Your task to perform on an android device: stop showing notifications on the lock screen Image 0: 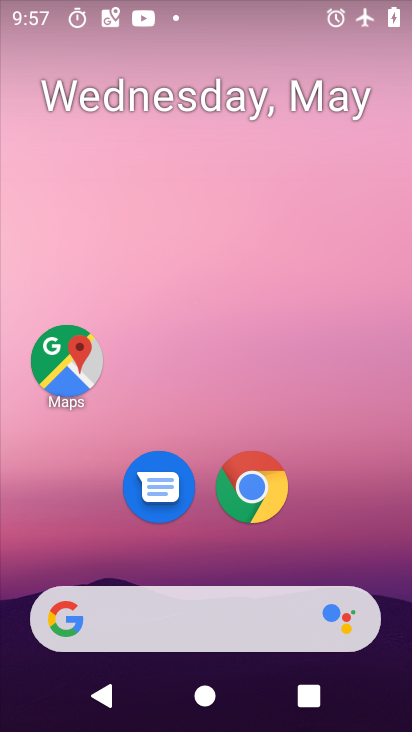
Step 0: drag from (200, 553) to (203, 220)
Your task to perform on an android device: stop showing notifications on the lock screen Image 1: 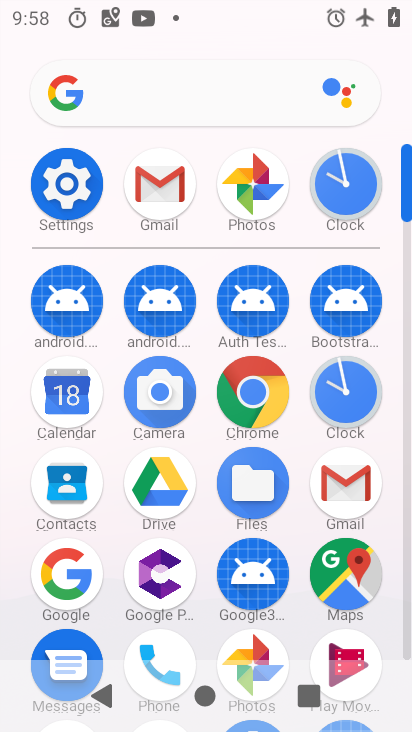
Step 1: click (57, 201)
Your task to perform on an android device: stop showing notifications on the lock screen Image 2: 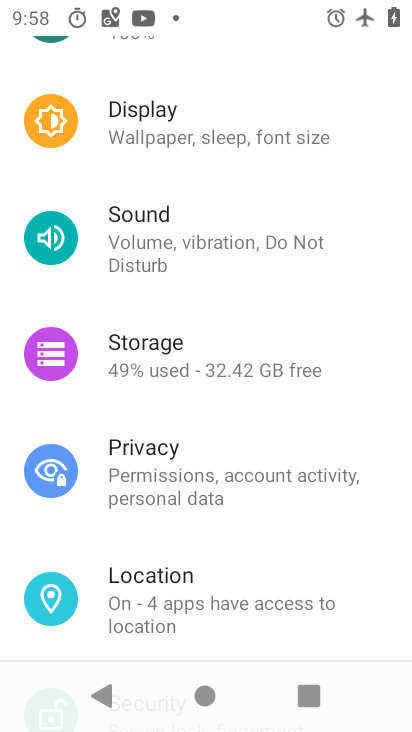
Step 2: drag from (218, 547) to (214, 197)
Your task to perform on an android device: stop showing notifications on the lock screen Image 3: 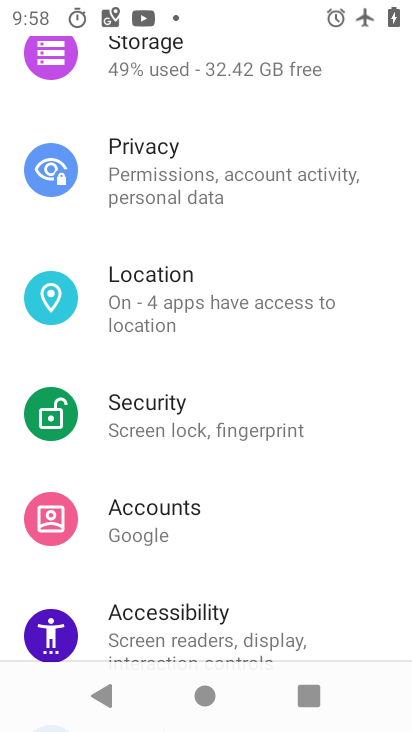
Step 3: drag from (214, 197) to (260, 503)
Your task to perform on an android device: stop showing notifications on the lock screen Image 4: 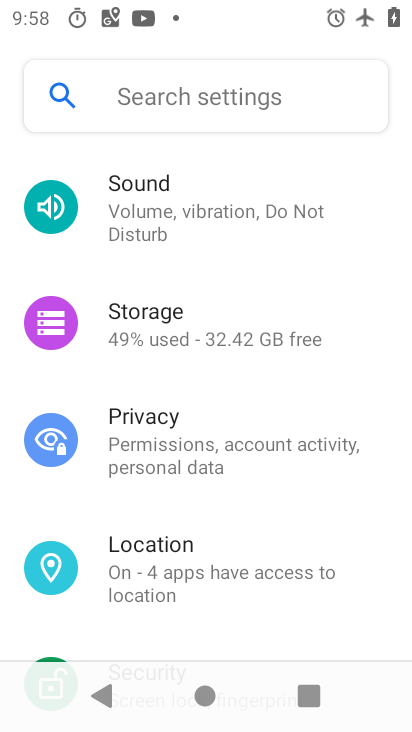
Step 4: click (220, 300)
Your task to perform on an android device: stop showing notifications on the lock screen Image 5: 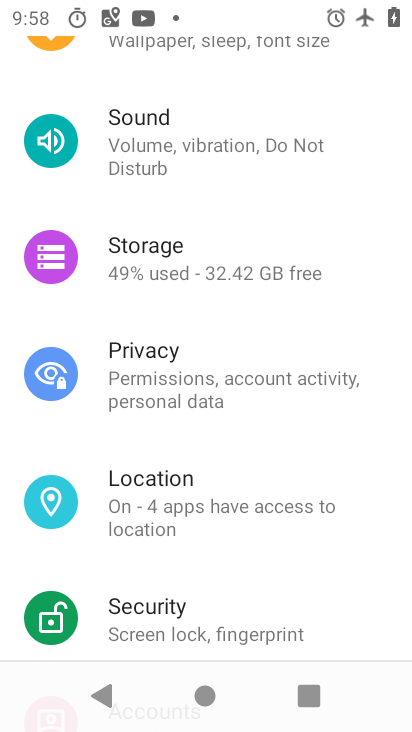
Step 5: drag from (215, 189) to (266, 560)
Your task to perform on an android device: stop showing notifications on the lock screen Image 6: 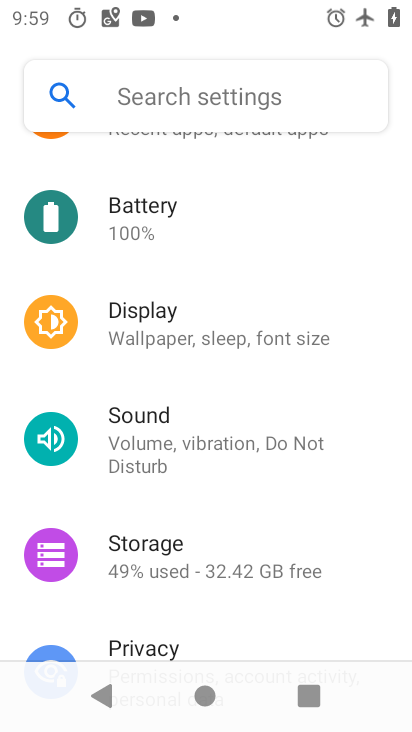
Step 6: drag from (207, 309) to (220, 539)
Your task to perform on an android device: stop showing notifications on the lock screen Image 7: 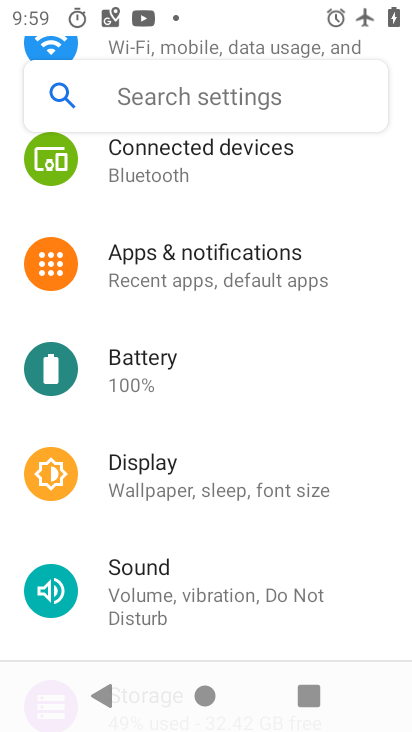
Step 7: click (185, 256)
Your task to perform on an android device: stop showing notifications on the lock screen Image 8: 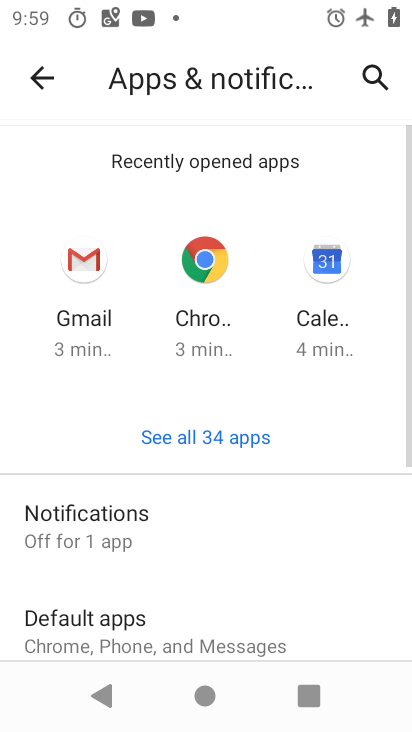
Step 8: click (179, 525)
Your task to perform on an android device: stop showing notifications on the lock screen Image 9: 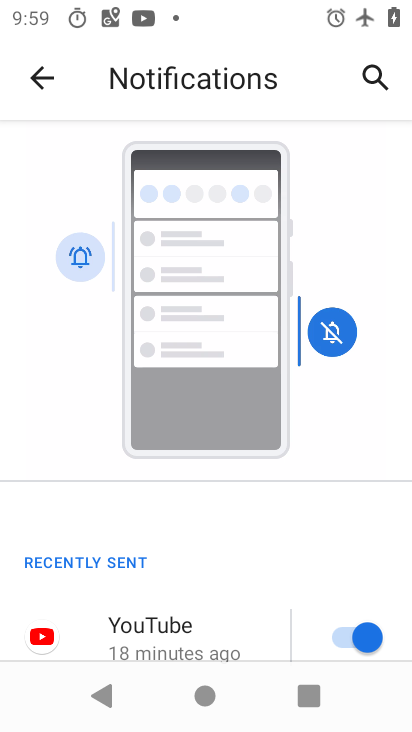
Step 9: drag from (157, 593) to (165, 317)
Your task to perform on an android device: stop showing notifications on the lock screen Image 10: 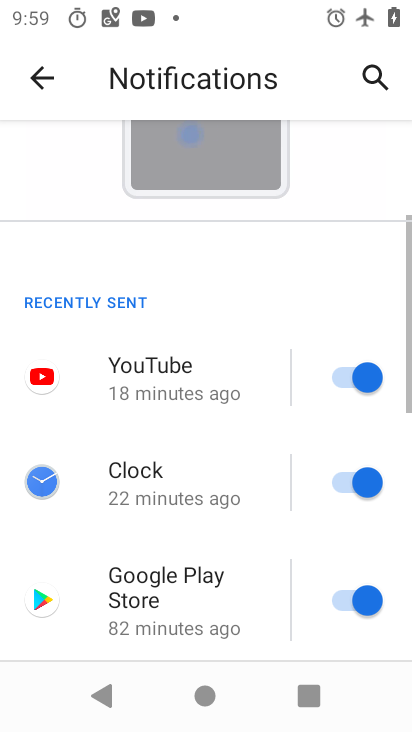
Step 10: drag from (194, 639) to (195, 345)
Your task to perform on an android device: stop showing notifications on the lock screen Image 11: 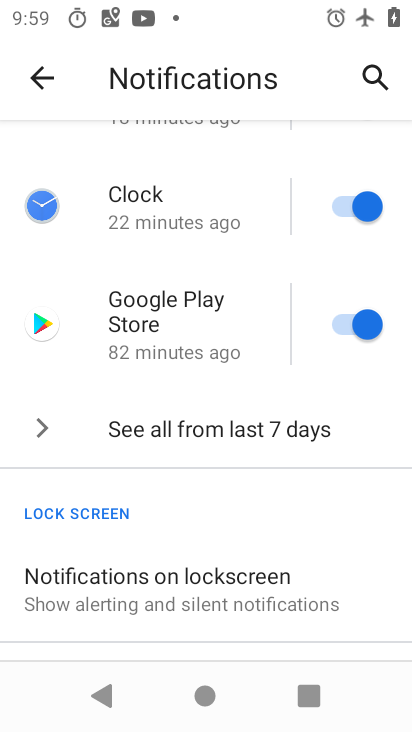
Step 11: click (194, 580)
Your task to perform on an android device: stop showing notifications on the lock screen Image 12: 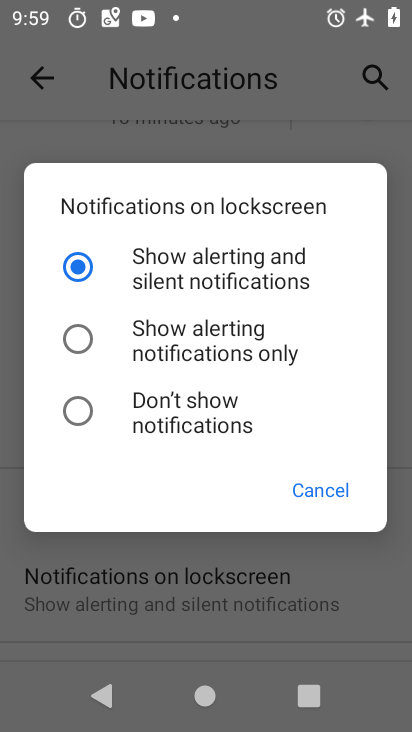
Step 12: click (182, 421)
Your task to perform on an android device: stop showing notifications on the lock screen Image 13: 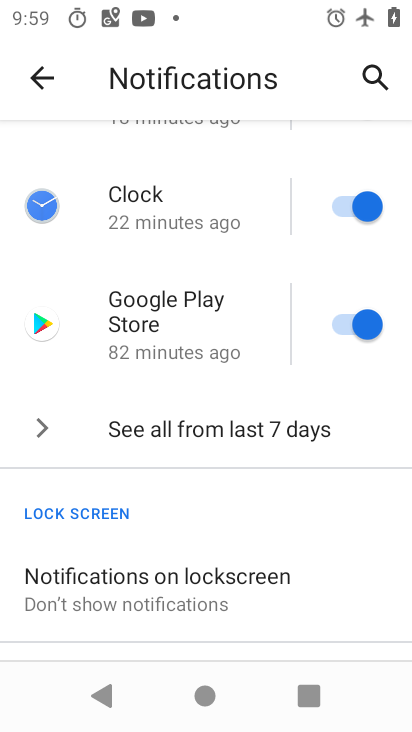
Step 13: task complete